Your task to perform on an android device: Go to location settings Image 0: 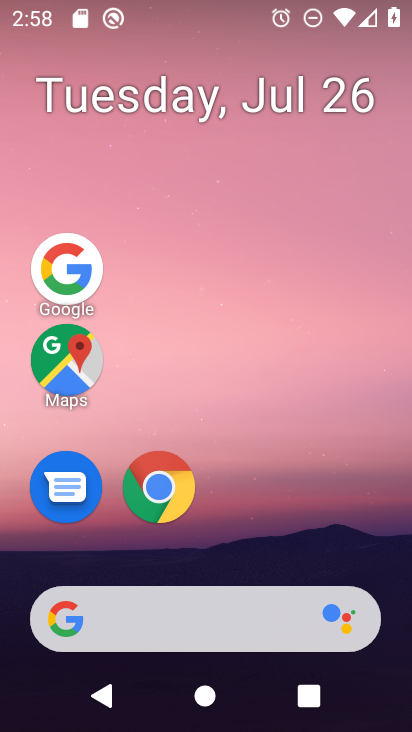
Step 0: drag from (184, 606) to (163, 66)
Your task to perform on an android device: Go to location settings Image 1: 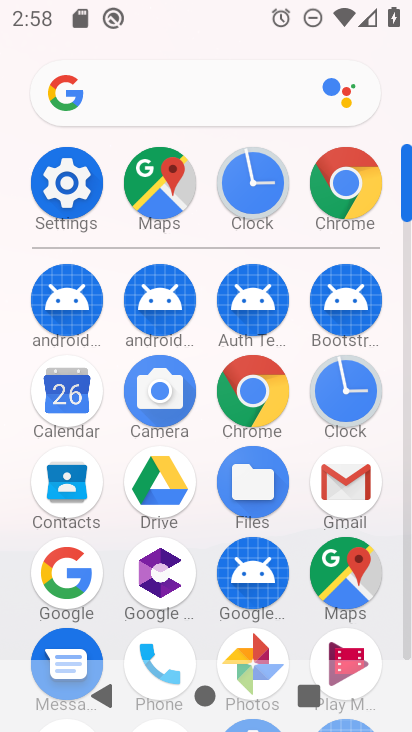
Step 1: click (54, 218)
Your task to perform on an android device: Go to location settings Image 2: 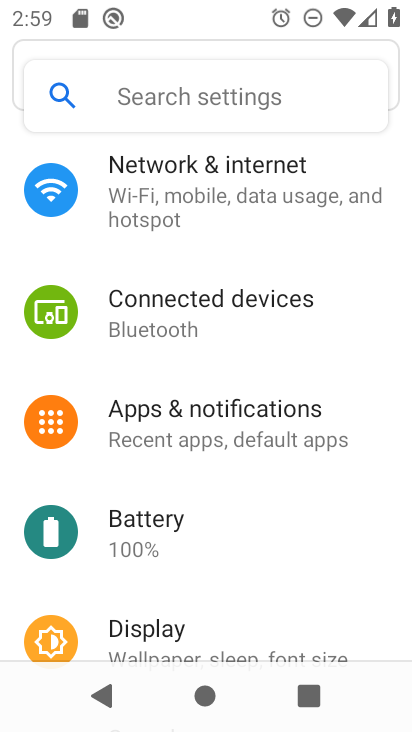
Step 2: drag from (160, 547) to (168, 279)
Your task to perform on an android device: Go to location settings Image 3: 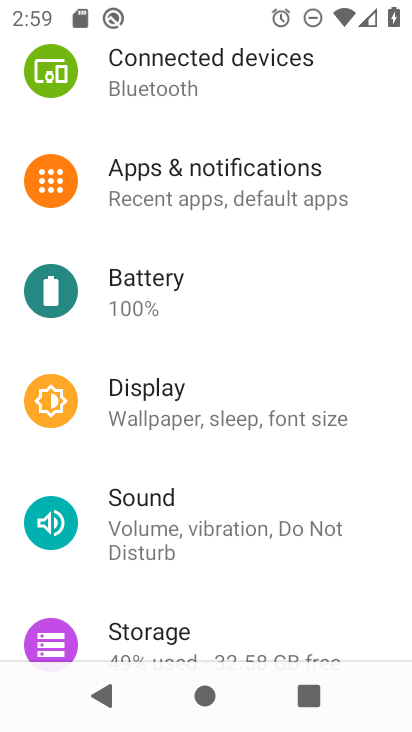
Step 3: drag from (144, 557) to (145, 366)
Your task to perform on an android device: Go to location settings Image 4: 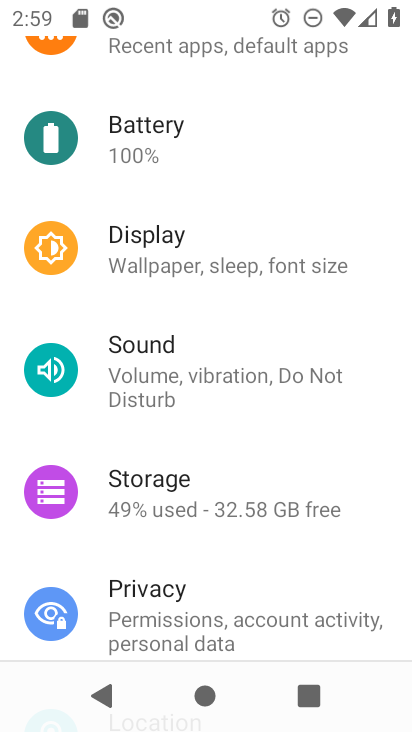
Step 4: drag from (206, 555) to (210, 284)
Your task to perform on an android device: Go to location settings Image 5: 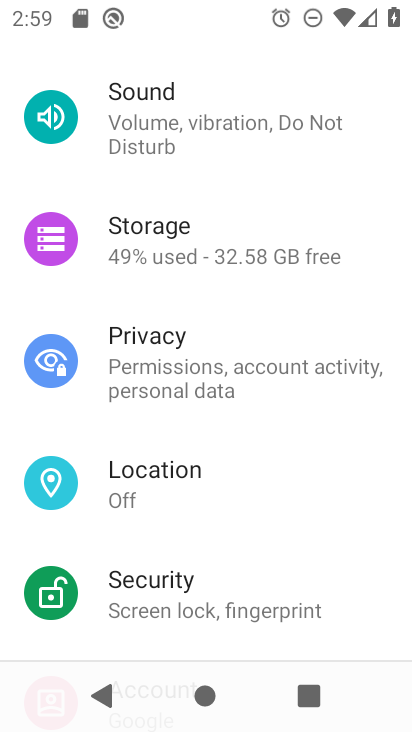
Step 5: click (196, 498)
Your task to perform on an android device: Go to location settings Image 6: 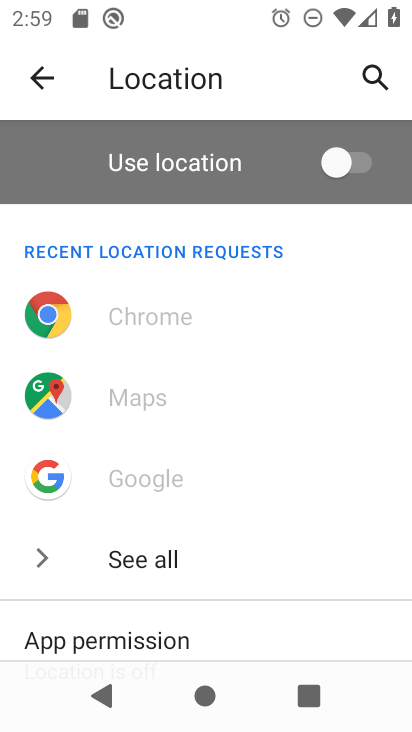
Step 6: task complete